Your task to perform on an android device: Is it going to rain this weekend? Image 0: 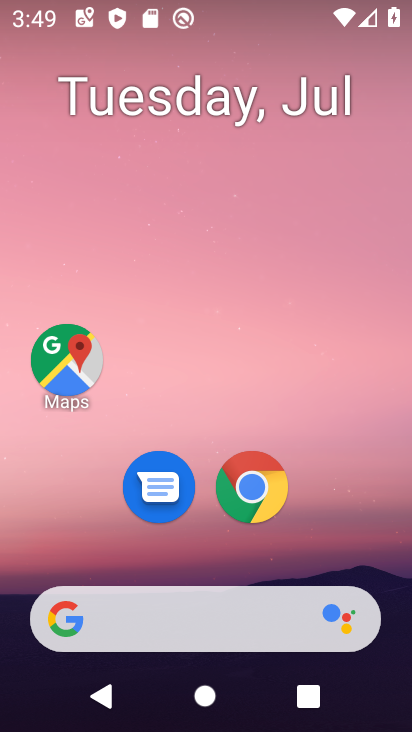
Step 0: click (162, 630)
Your task to perform on an android device: Is it going to rain this weekend? Image 1: 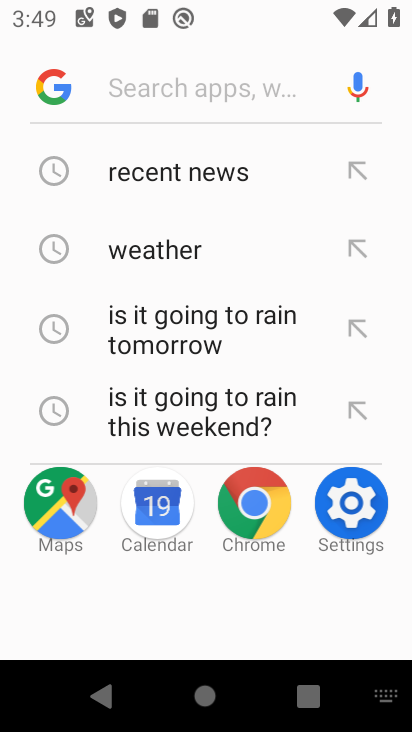
Step 1: click (135, 257)
Your task to perform on an android device: Is it going to rain this weekend? Image 2: 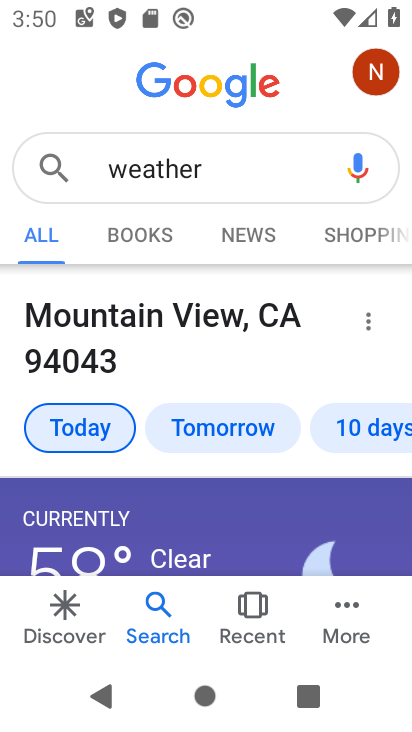
Step 2: click (383, 419)
Your task to perform on an android device: Is it going to rain this weekend? Image 3: 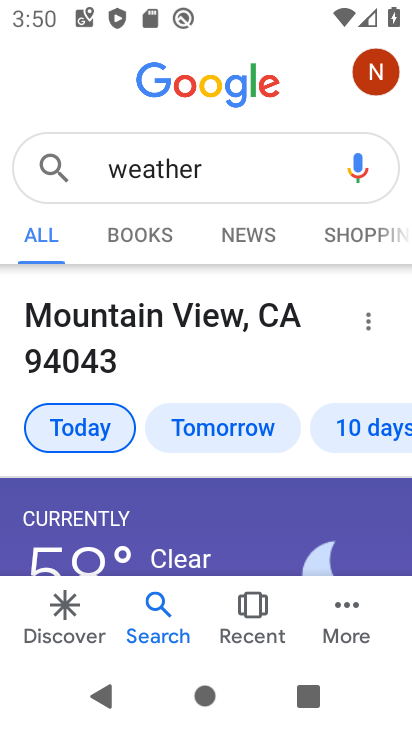
Step 3: click (363, 431)
Your task to perform on an android device: Is it going to rain this weekend? Image 4: 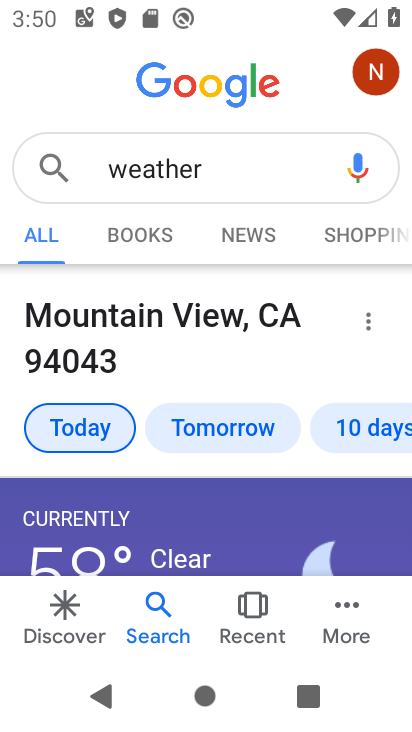
Step 4: click (365, 429)
Your task to perform on an android device: Is it going to rain this weekend? Image 5: 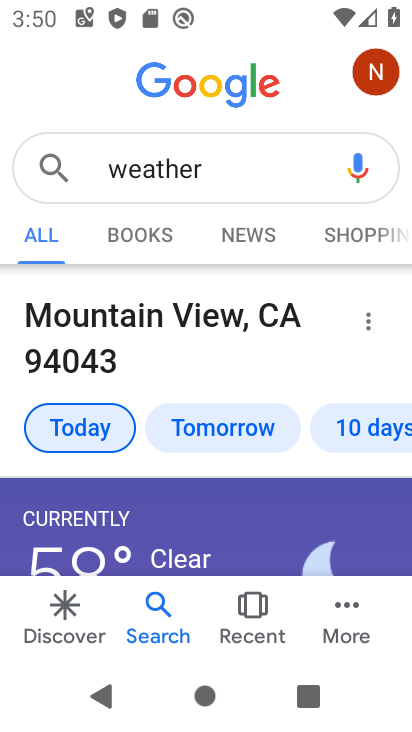
Step 5: task complete